Your task to perform on an android device: Show me popular videos on Youtube Image 0: 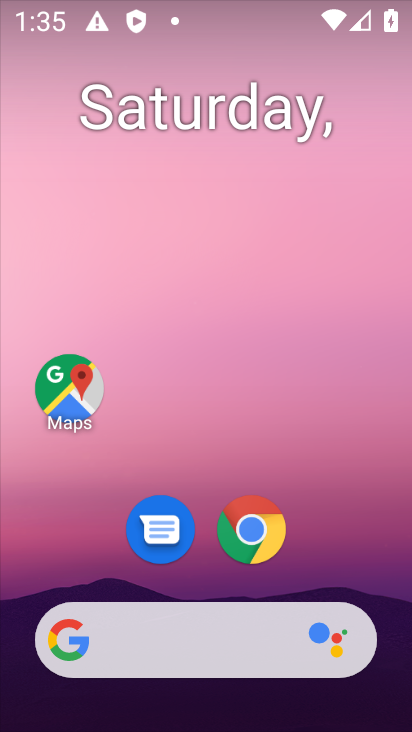
Step 0: drag from (356, 578) to (285, 55)
Your task to perform on an android device: Show me popular videos on Youtube Image 1: 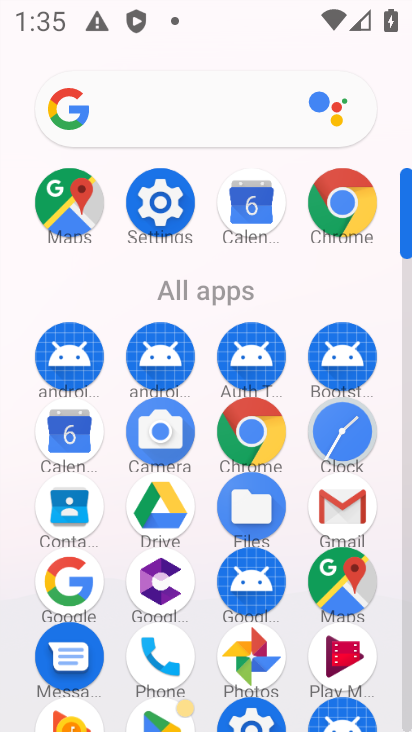
Step 1: click (406, 720)
Your task to perform on an android device: Show me popular videos on Youtube Image 2: 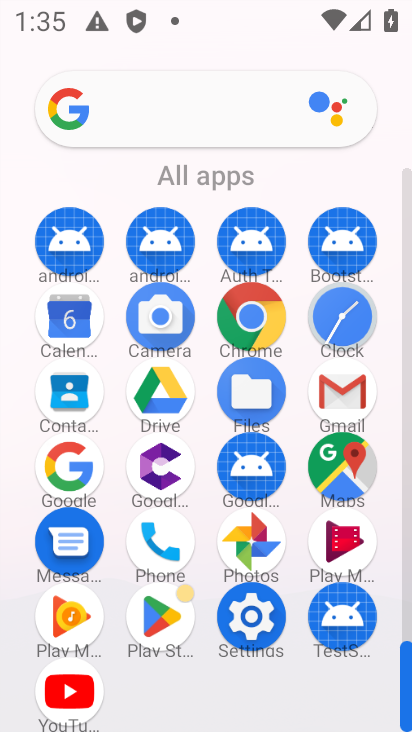
Step 2: click (73, 697)
Your task to perform on an android device: Show me popular videos on Youtube Image 3: 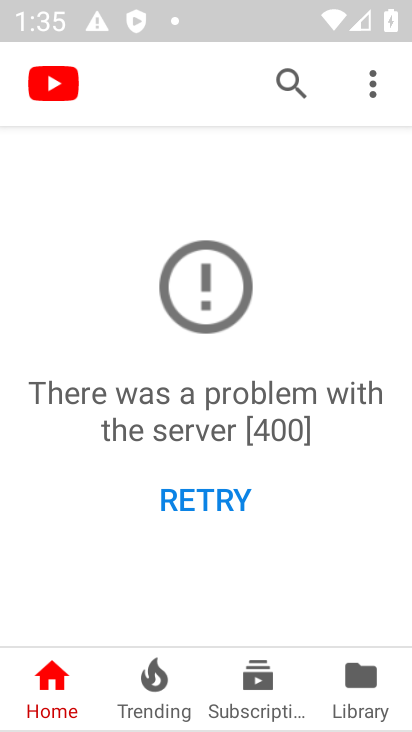
Step 3: task complete